Your task to perform on an android device: Play the last video I watched on Youtube Image 0: 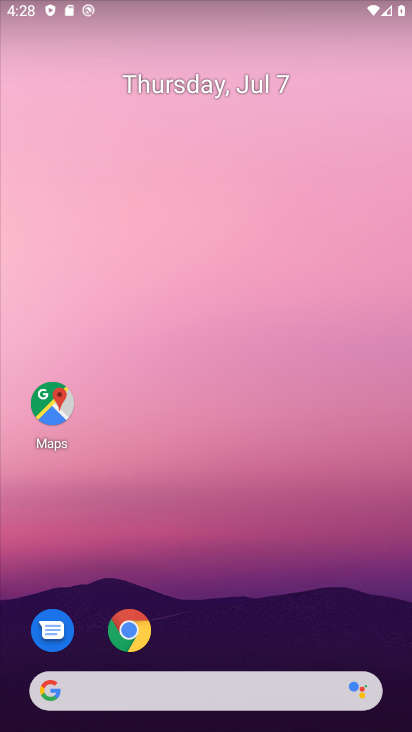
Step 0: drag from (283, 543) to (298, 93)
Your task to perform on an android device: Play the last video I watched on Youtube Image 1: 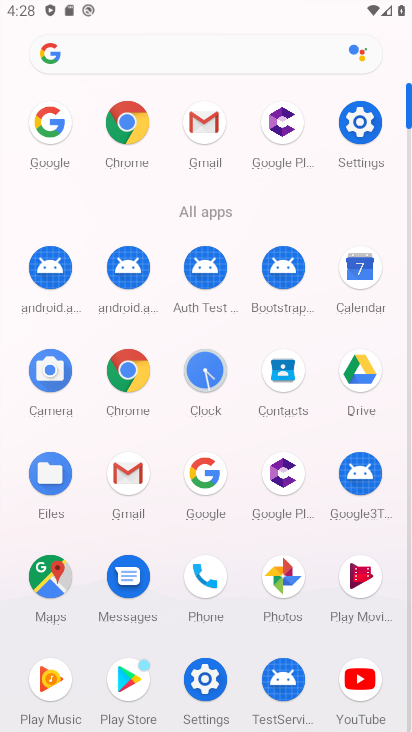
Step 1: click (366, 680)
Your task to perform on an android device: Play the last video I watched on Youtube Image 2: 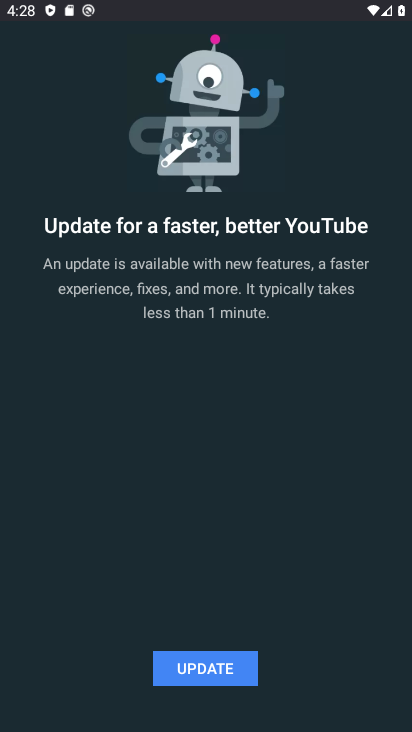
Step 2: click (227, 677)
Your task to perform on an android device: Play the last video I watched on Youtube Image 3: 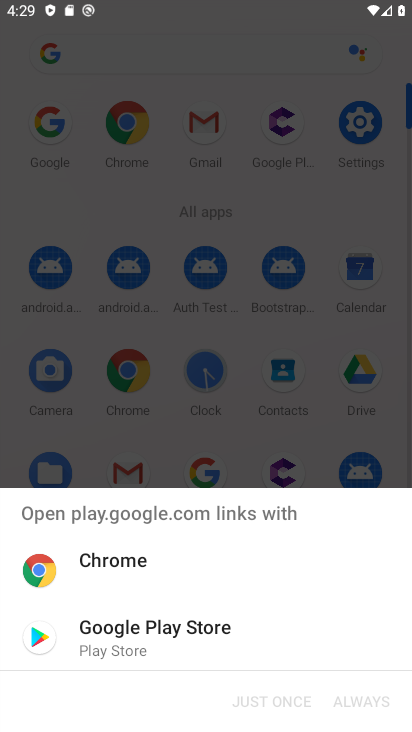
Step 3: click (195, 627)
Your task to perform on an android device: Play the last video I watched on Youtube Image 4: 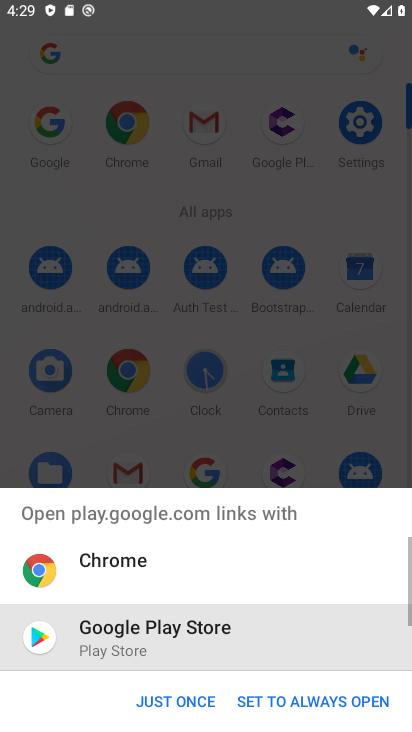
Step 4: click (204, 637)
Your task to perform on an android device: Play the last video I watched on Youtube Image 5: 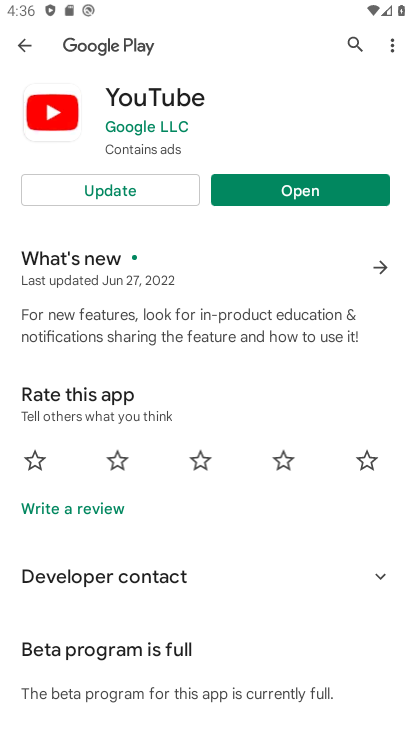
Step 5: press home button
Your task to perform on an android device: Play the last video I watched on Youtube Image 6: 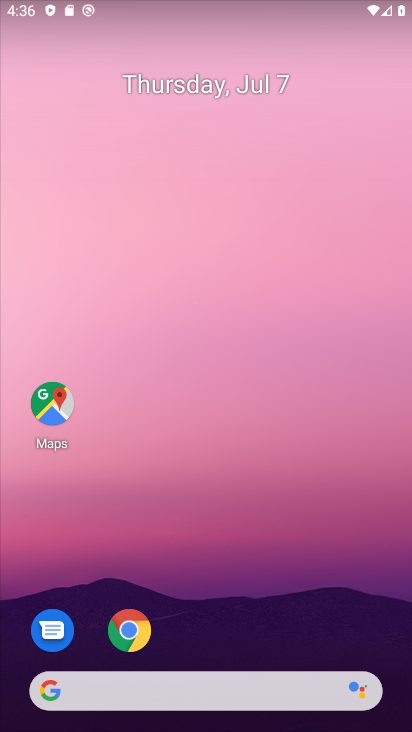
Step 6: drag from (245, 444) to (260, 236)
Your task to perform on an android device: Play the last video I watched on Youtube Image 7: 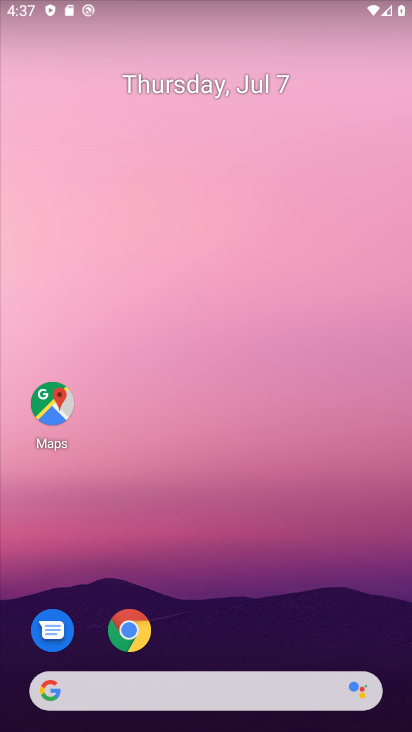
Step 7: drag from (203, 565) to (250, 118)
Your task to perform on an android device: Play the last video I watched on Youtube Image 8: 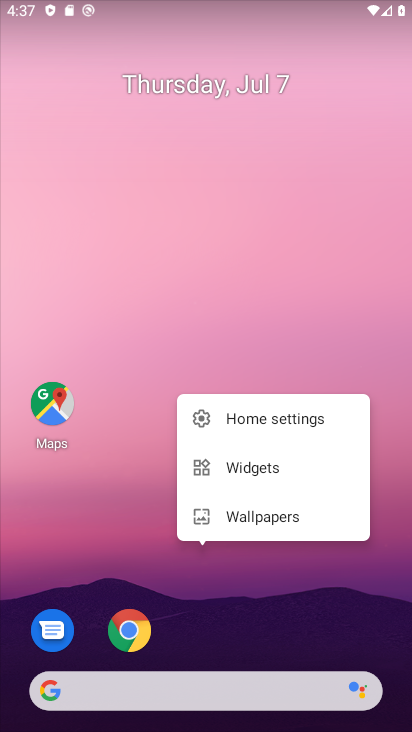
Step 8: drag from (233, 593) to (212, 362)
Your task to perform on an android device: Play the last video I watched on Youtube Image 9: 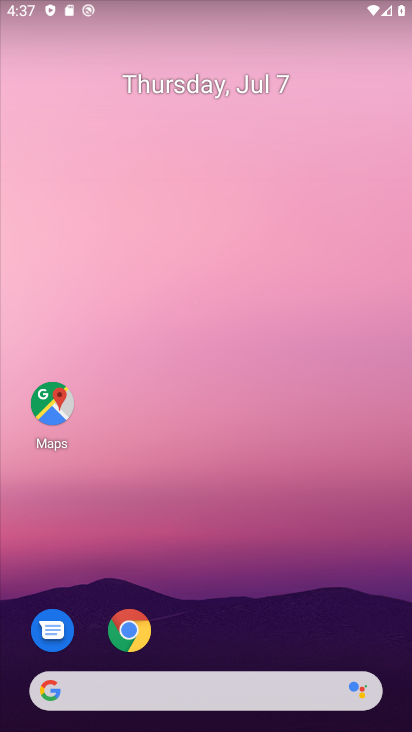
Step 9: drag from (274, 644) to (297, 265)
Your task to perform on an android device: Play the last video I watched on Youtube Image 10: 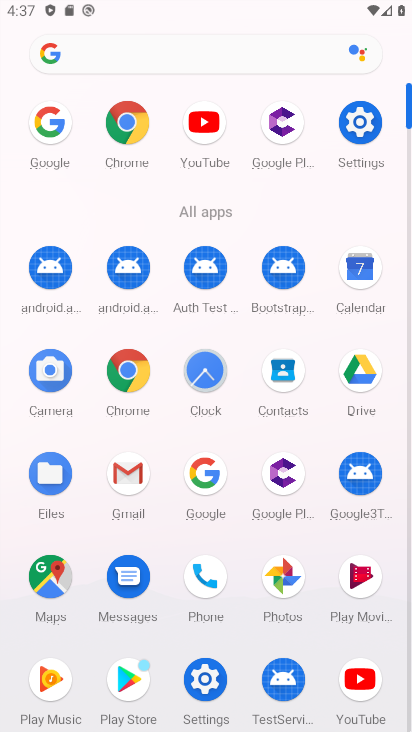
Step 10: click (197, 166)
Your task to perform on an android device: Play the last video I watched on Youtube Image 11: 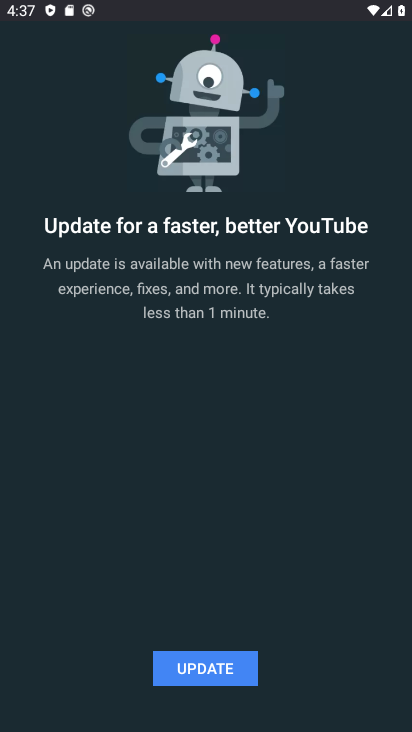
Step 11: task complete